Your task to perform on an android device: empty trash in google photos Image 0: 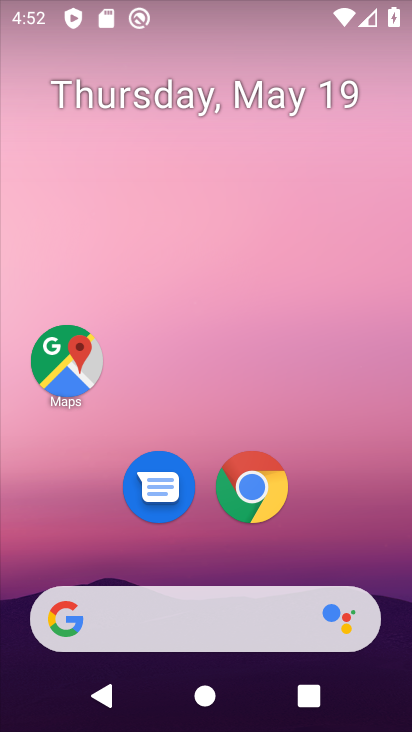
Step 0: drag from (349, 553) to (286, 106)
Your task to perform on an android device: empty trash in google photos Image 1: 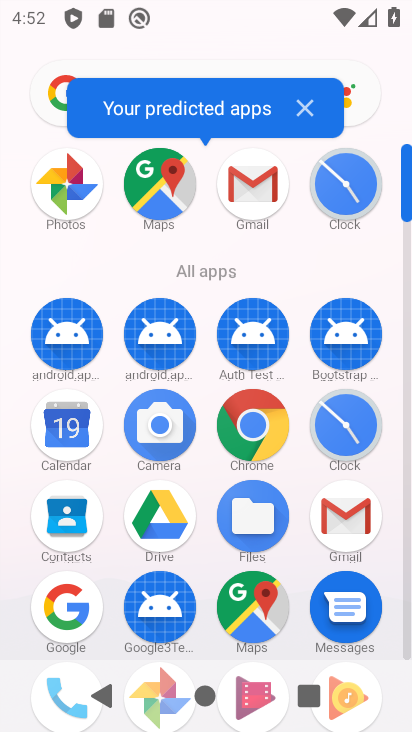
Step 1: click (67, 184)
Your task to perform on an android device: empty trash in google photos Image 2: 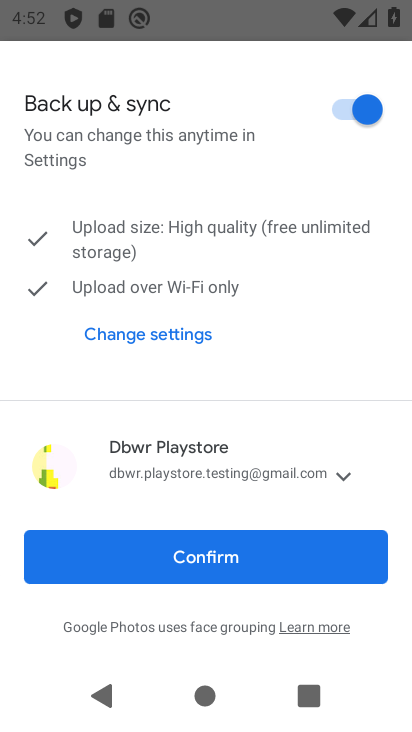
Step 2: click (188, 566)
Your task to perform on an android device: empty trash in google photos Image 3: 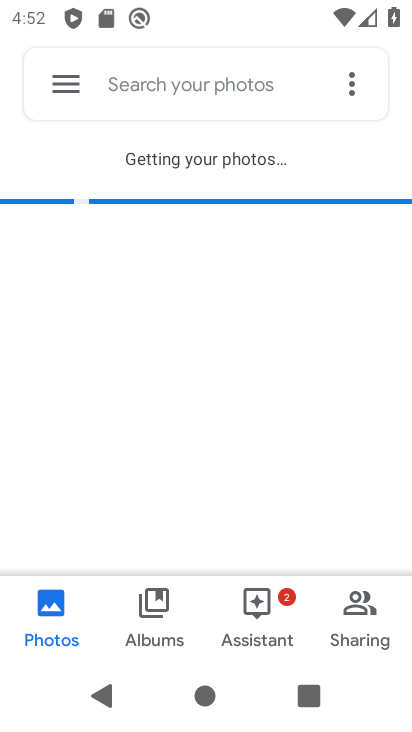
Step 3: click (65, 89)
Your task to perform on an android device: empty trash in google photos Image 4: 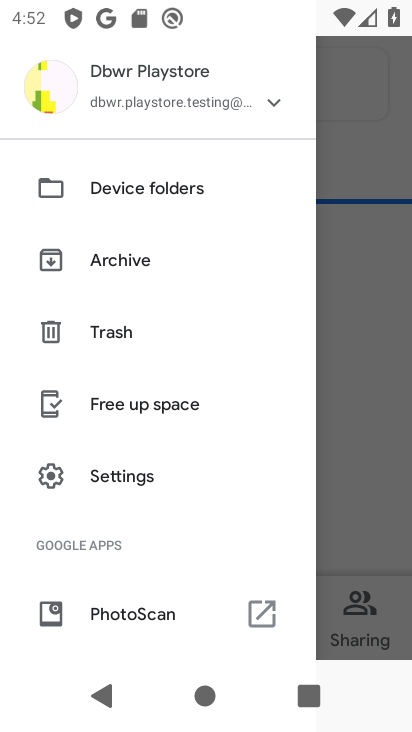
Step 4: click (120, 329)
Your task to perform on an android device: empty trash in google photos Image 5: 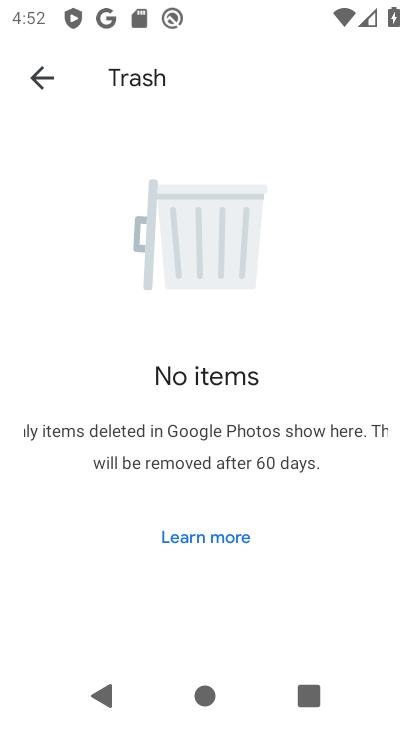
Step 5: task complete